Your task to perform on an android device: Go to Reddit.com Image 0: 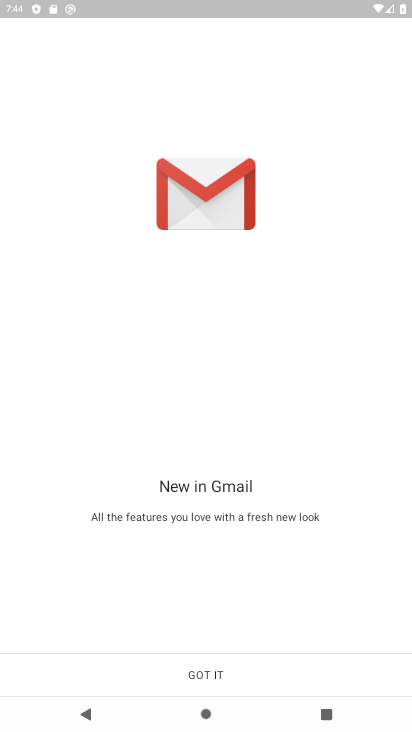
Step 0: press home button
Your task to perform on an android device: Go to Reddit.com Image 1: 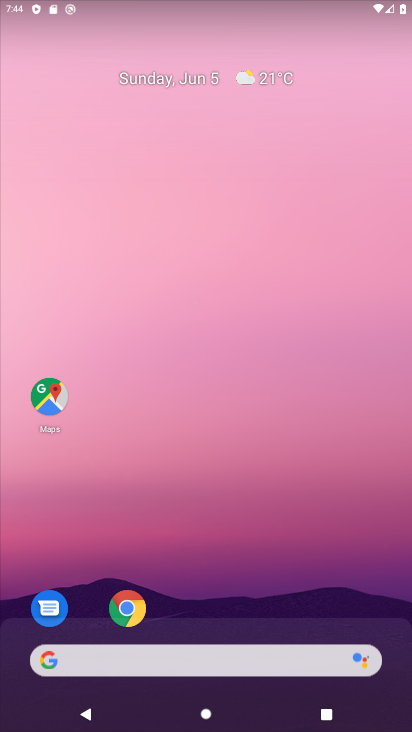
Step 1: click (123, 612)
Your task to perform on an android device: Go to Reddit.com Image 2: 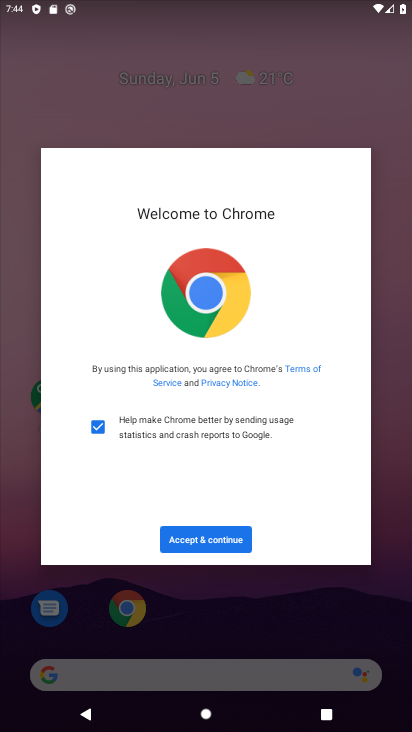
Step 2: click (209, 544)
Your task to perform on an android device: Go to Reddit.com Image 3: 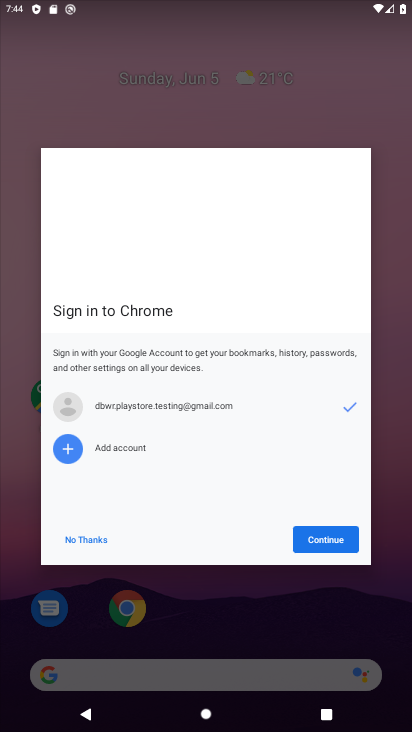
Step 3: click (330, 547)
Your task to perform on an android device: Go to Reddit.com Image 4: 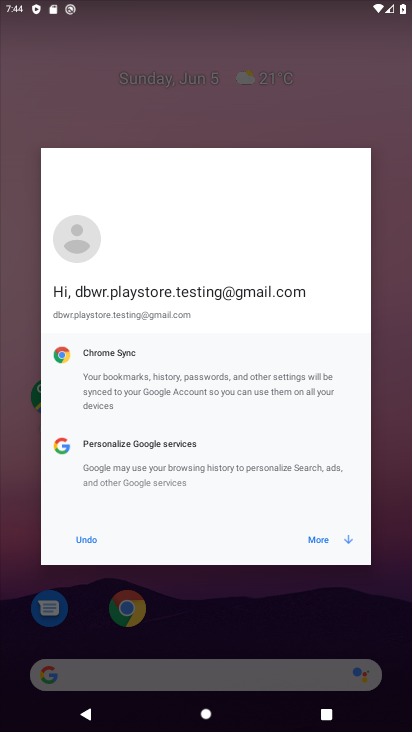
Step 4: click (329, 540)
Your task to perform on an android device: Go to Reddit.com Image 5: 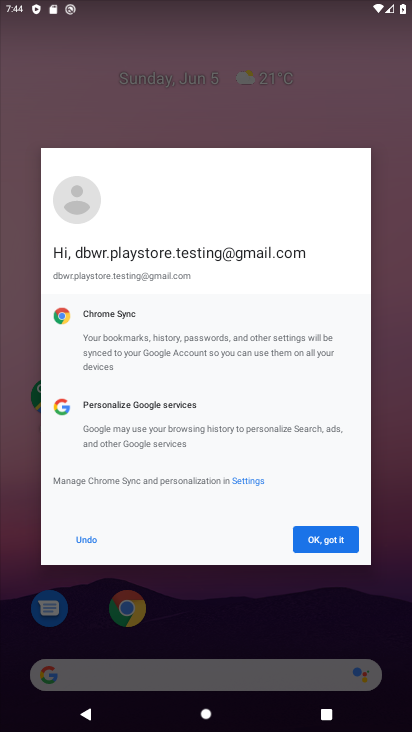
Step 5: click (329, 540)
Your task to perform on an android device: Go to Reddit.com Image 6: 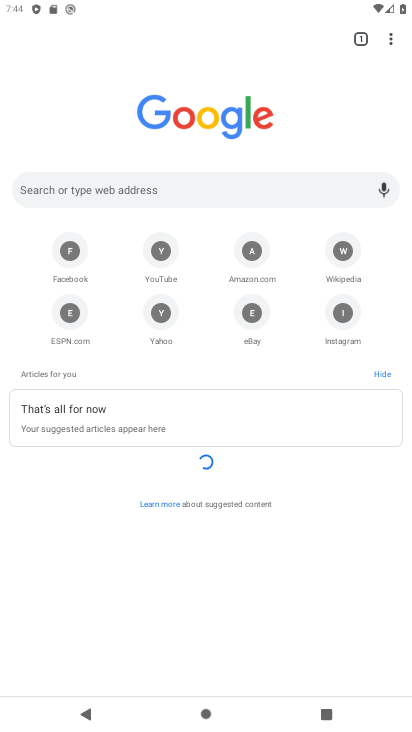
Step 6: click (104, 40)
Your task to perform on an android device: Go to Reddit.com Image 7: 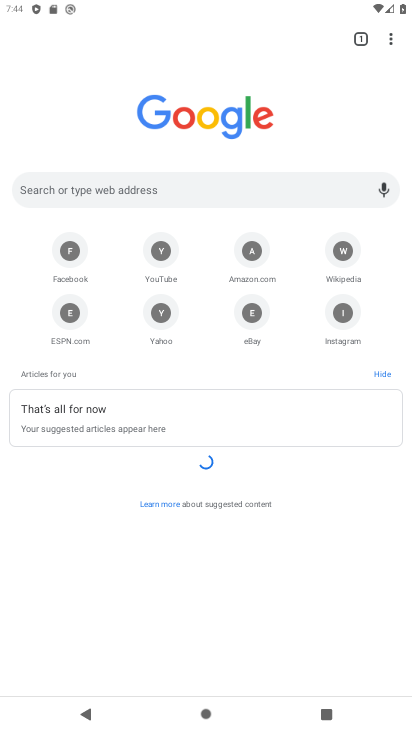
Step 7: click (141, 191)
Your task to perform on an android device: Go to Reddit.com Image 8: 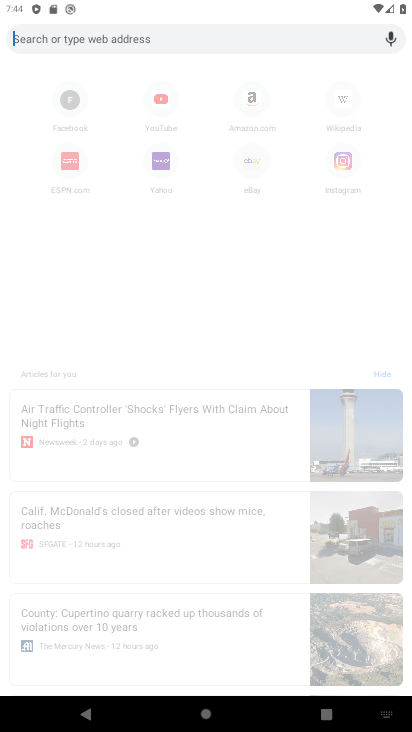
Step 8: type "Reddit.com"
Your task to perform on an android device: Go to Reddit.com Image 9: 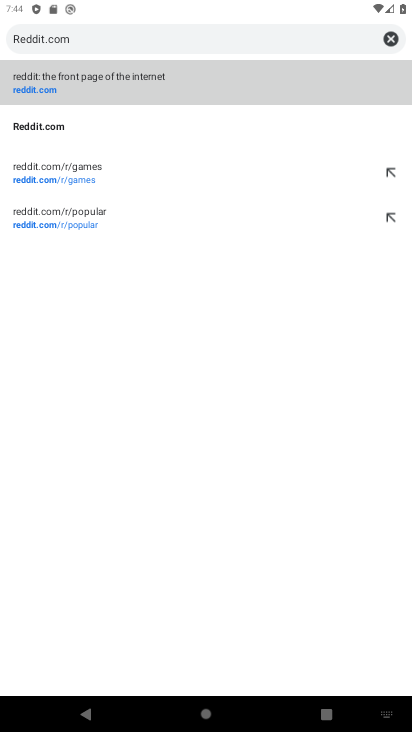
Step 9: click (165, 83)
Your task to perform on an android device: Go to Reddit.com Image 10: 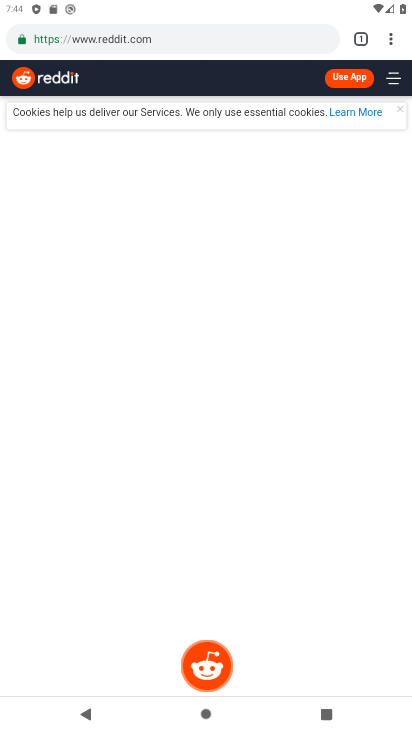
Step 10: task complete